Your task to perform on an android device: turn notification dots on Image 0: 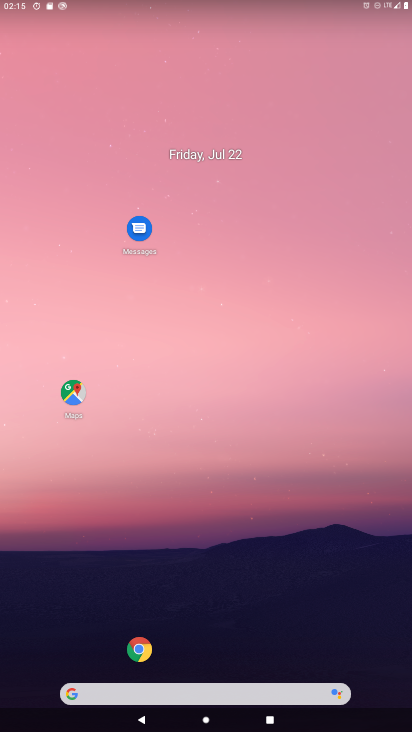
Step 0: drag from (138, 450) to (363, 61)
Your task to perform on an android device: turn notification dots on Image 1: 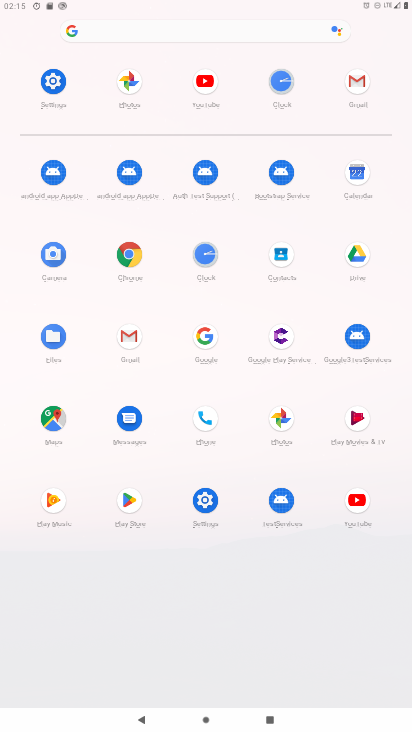
Step 1: click (214, 507)
Your task to perform on an android device: turn notification dots on Image 2: 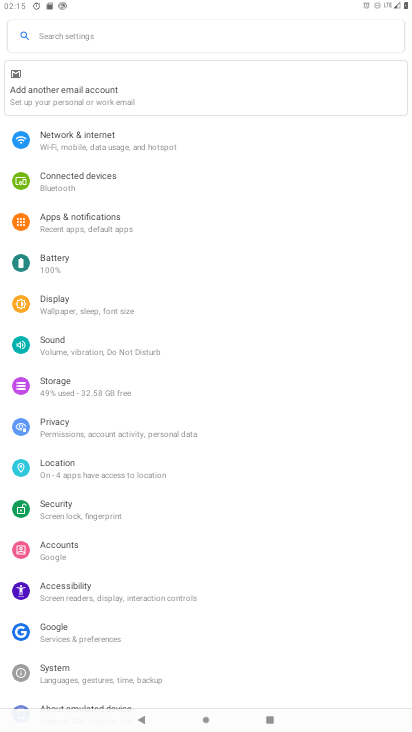
Step 2: click (92, 225)
Your task to perform on an android device: turn notification dots on Image 3: 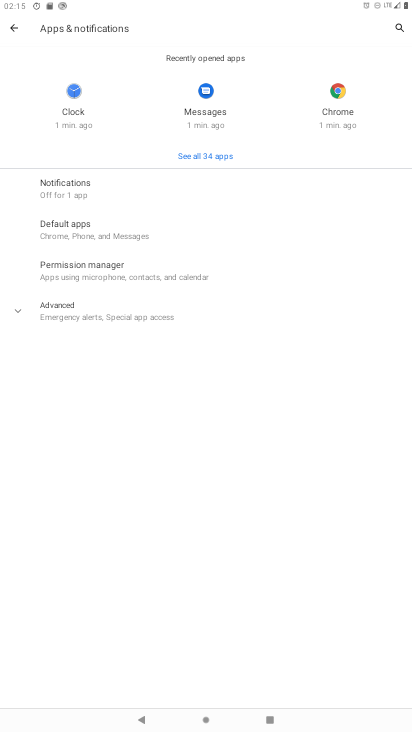
Step 3: click (67, 300)
Your task to perform on an android device: turn notification dots on Image 4: 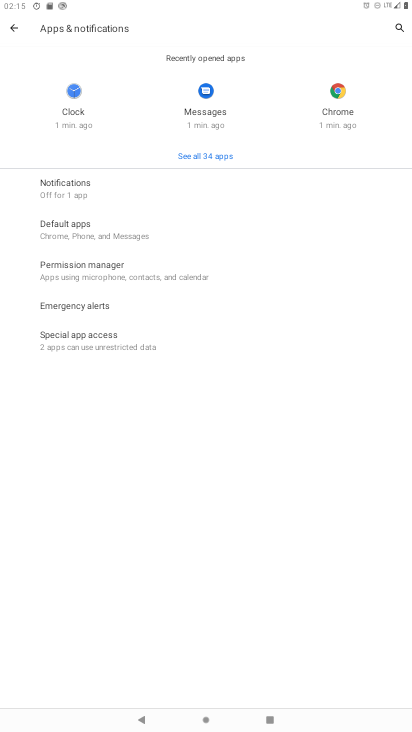
Step 4: click (72, 340)
Your task to perform on an android device: turn notification dots on Image 5: 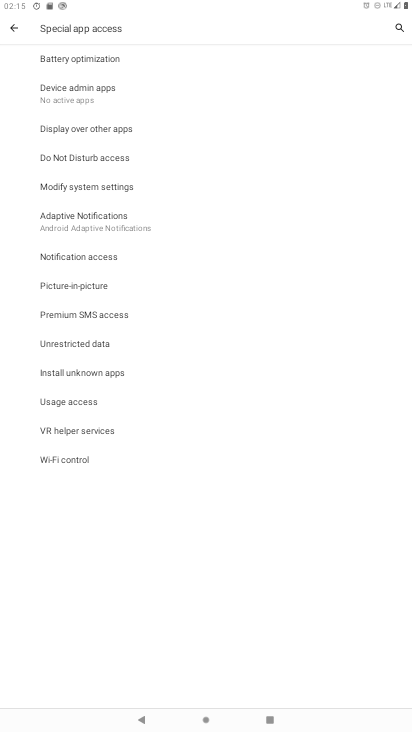
Step 5: click (7, 21)
Your task to perform on an android device: turn notification dots on Image 6: 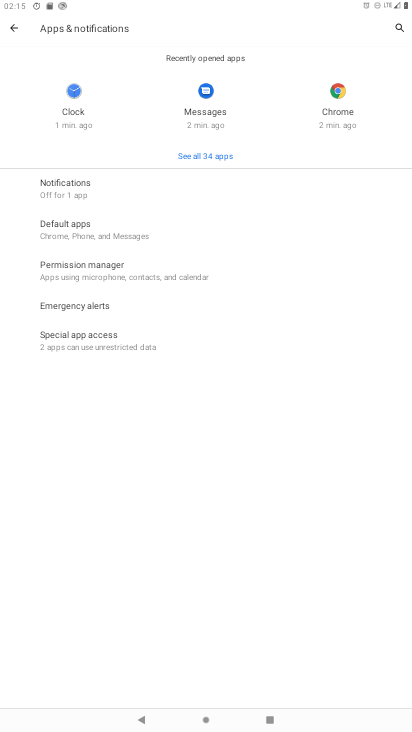
Step 6: click (51, 179)
Your task to perform on an android device: turn notification dots on Image 7: 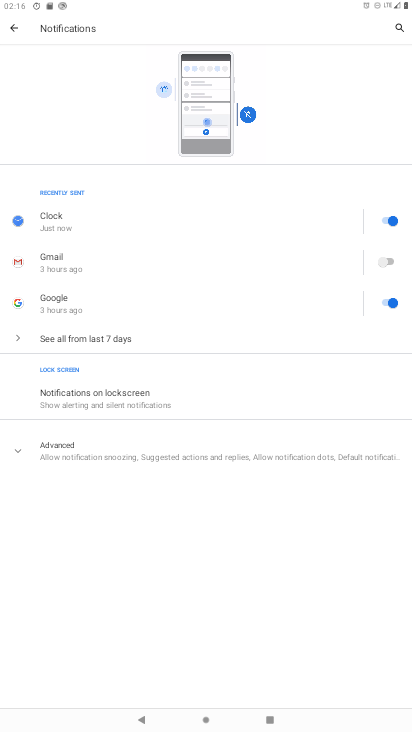
Step 7: click (97, 439)
Your task to perform on an android device: turn notification dots on Image 8: 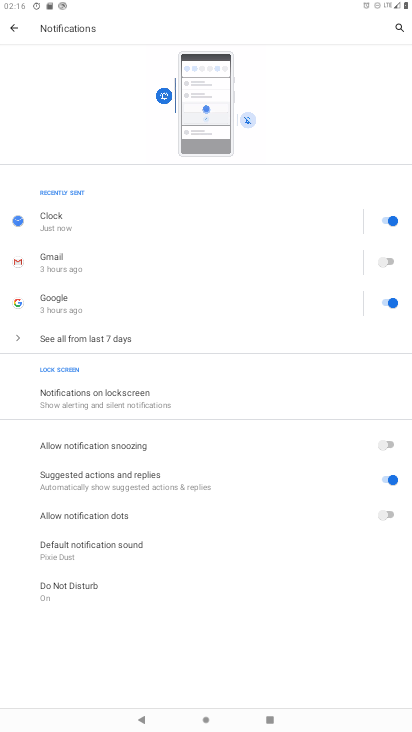
Step 8: click (384, 506)
Your task to perform on an android device: turn notification dots on Image 9: 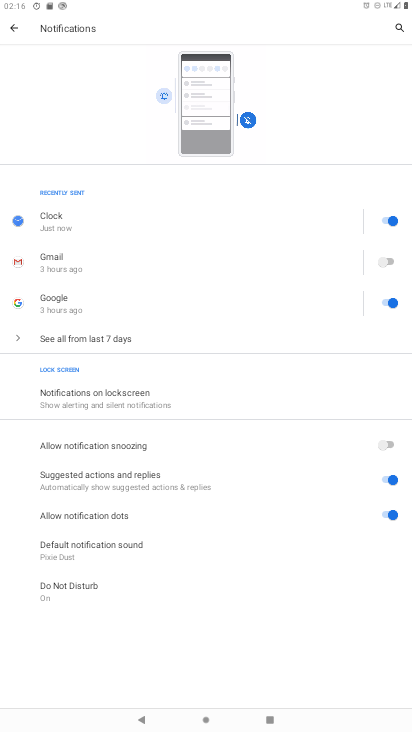
Step 9: task complete